Your task to perform on an android device: delete browsing data in the chrome app Image 0: 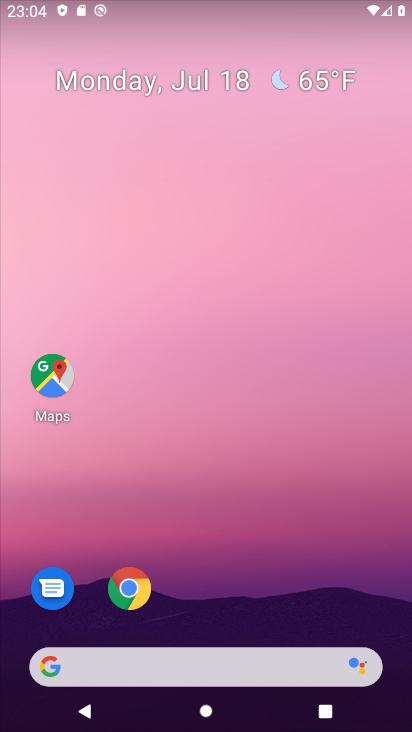
Step 0: click (129, 580)
Your task to perform on an android device: delete browsing data in the chrome app Image 1: 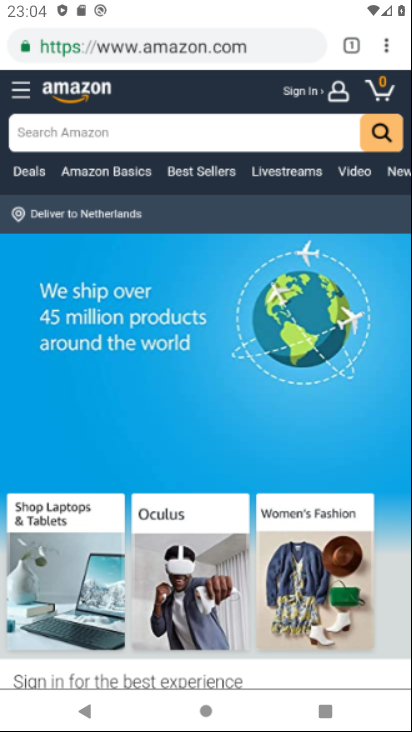
Step 1: click (386, 45)
Your task to perform on an android device: delete browsing data in the chrome app Image 2: 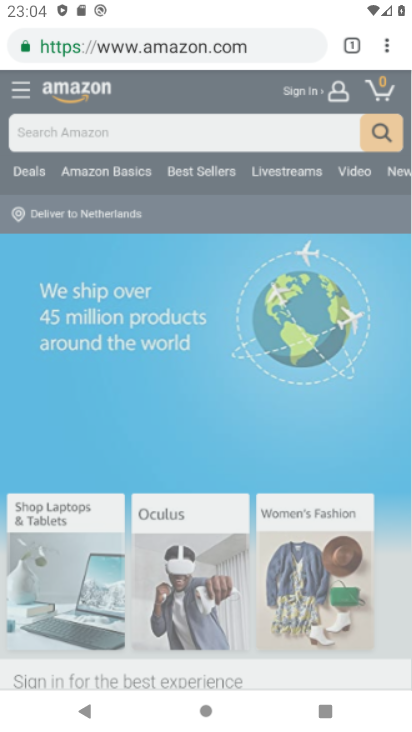
Step 2: drag from (385, 41) to (249, 552)
Your task to perform on an android device: delete browsing data in the chrome app Image 3: 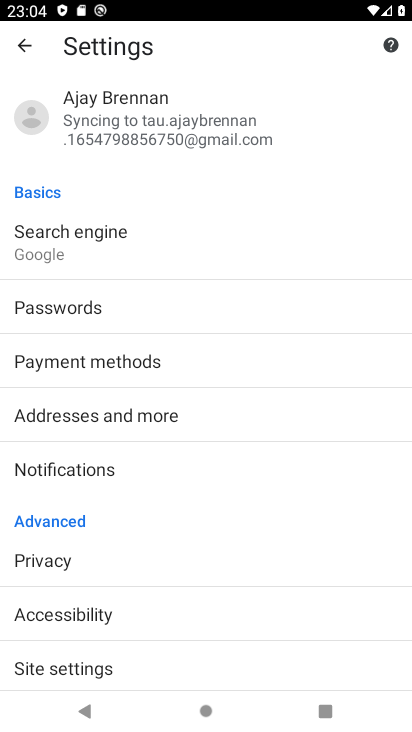
Step 3: click (49, 561)
Your task to perform on an android device: delete browsing data in the chrome app Image 4: 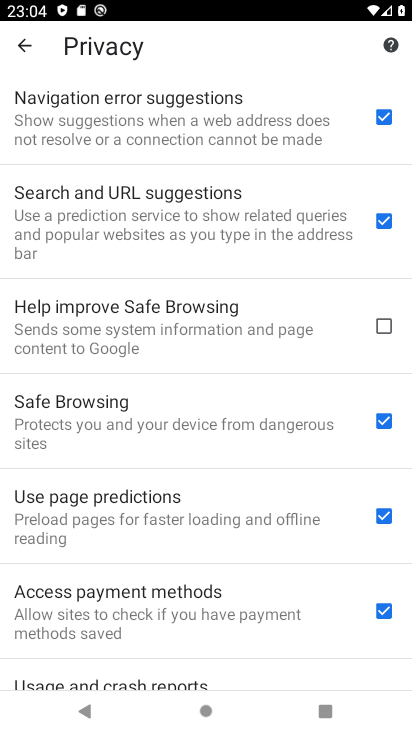
Step 4: drag from (273, 636) to (286, 196)
Your task to perform on an android device: delete browsing data in the chrome app Image 5: 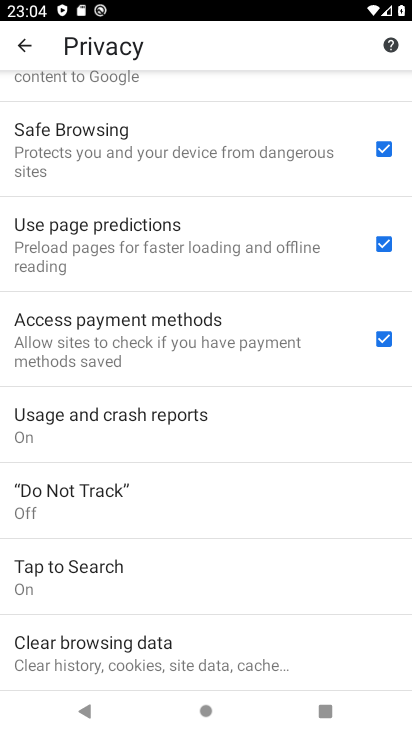
Step 5: click (118, 641)
Your task to perform on an android device: delete browsing data in the chrome app Image 6: 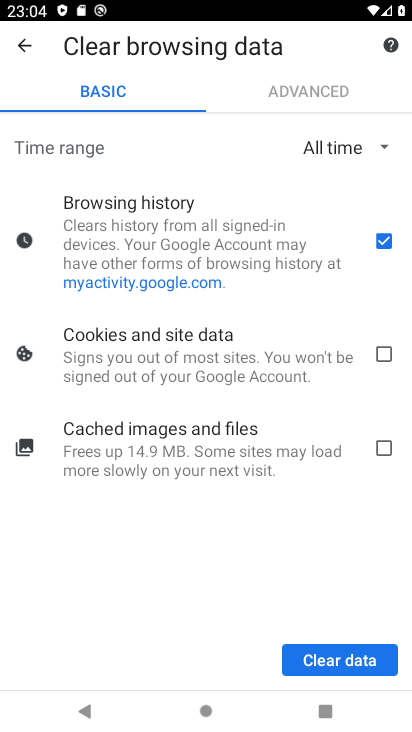
Step 6: click (330, 660)
Your task to perform on an android device: delete browsing data in the chrome app Image 7: 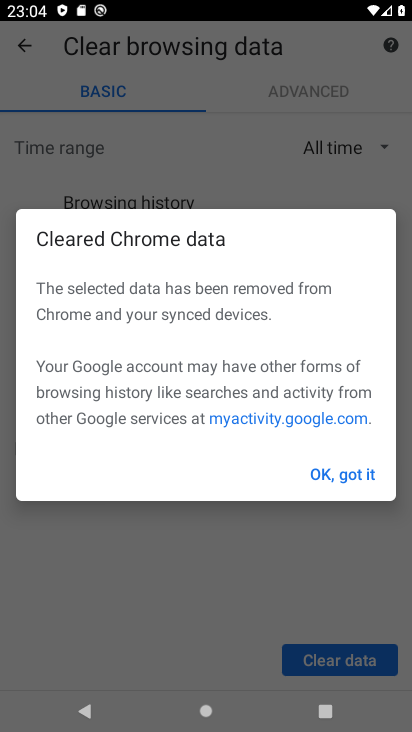
Step 7: click (355, 467)
Your task to perform on an android device: delete browsing data in the chrome app Image 8: 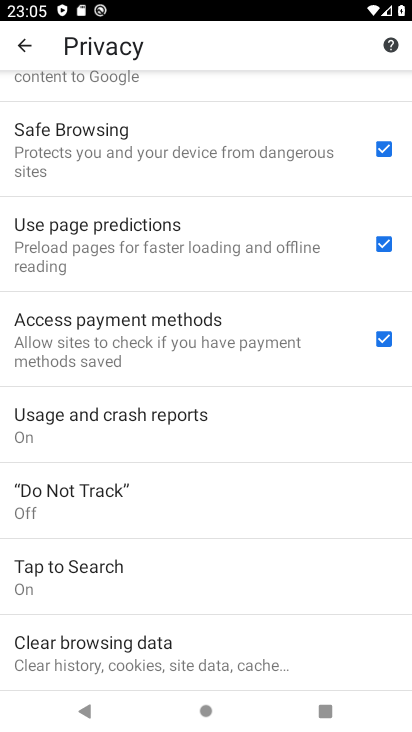
Step 8: task complete